Your task to perform on an android device: turn off airplane mode Image 0: 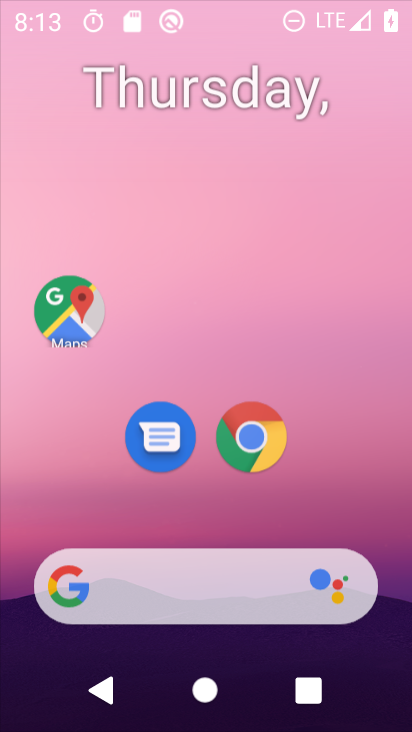
Step 0: click (217, 122)
Your task to perform on an android device: turn off airplane mode Image 1: 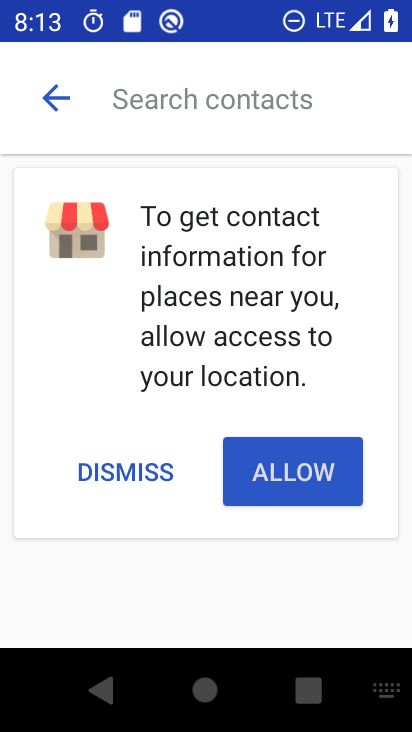
Step 1: press home button
Your task to perform on an android device: turn off airplane mode Image 2: 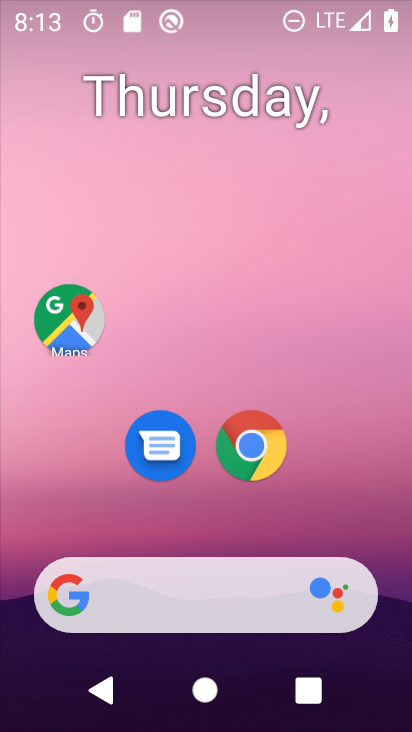
Step 2: drag from (198, 603) to (212, 112)
Your task to perform on an android device: turn off airplane mode Image 3: 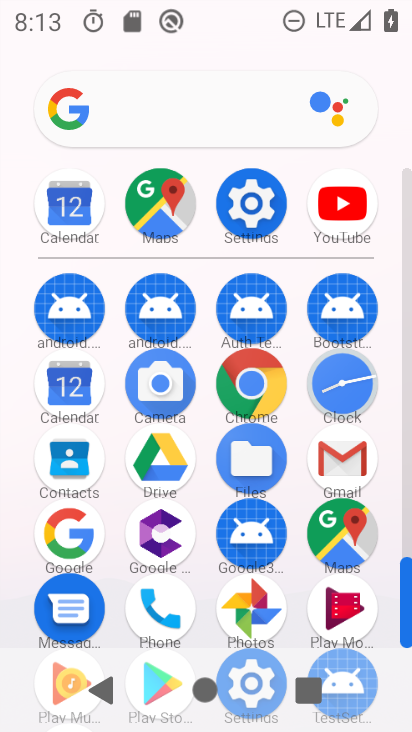
Step 3: drag from (200, 637) to (221, 198)
Your task to perform on an android device: turn off airplane mode Image 4: 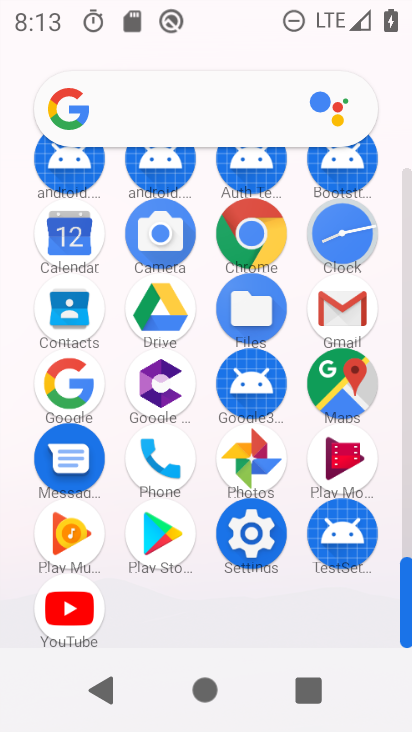
Step 4: click (256, 541)
Your task to perform on an android device: turn off airplane mode Image 5: 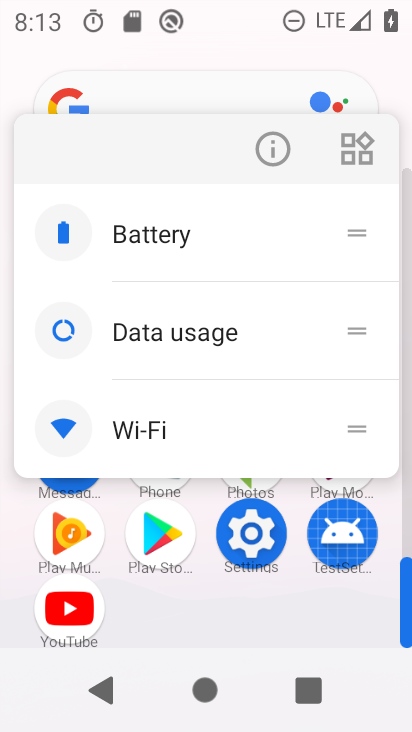
Step 5: click (277, 154)
Your task to perform on an android device: turn off airplane mode Image 6: 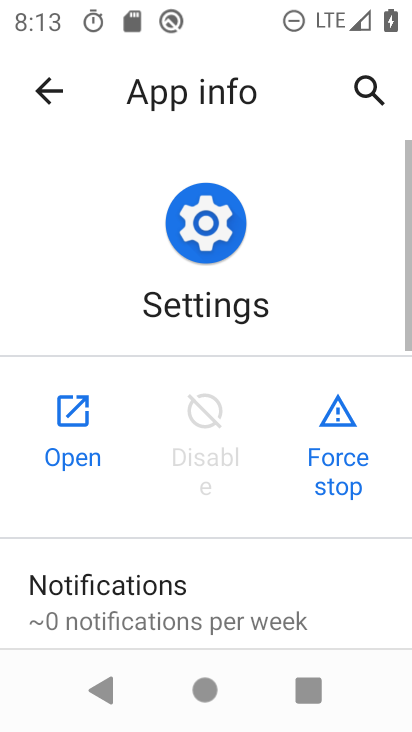
Step 6: click (60, 388)
Your task to perform on an android device: turn off airplane mode Image 7: 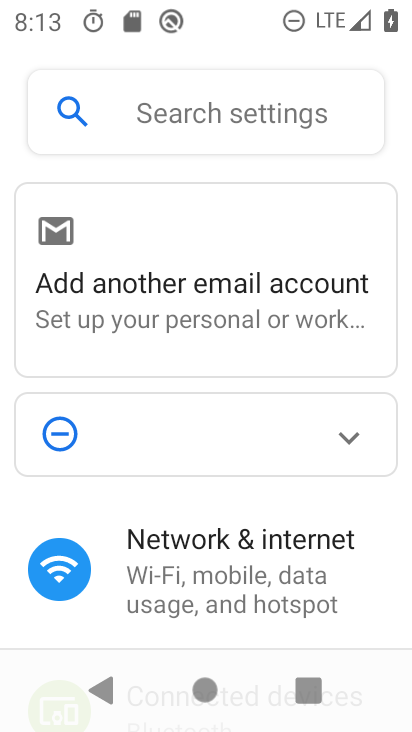
Step 7: drag from (181, 590) to (217, 333)
Your task to perform on an android device: turn off airplane mode Image 8: 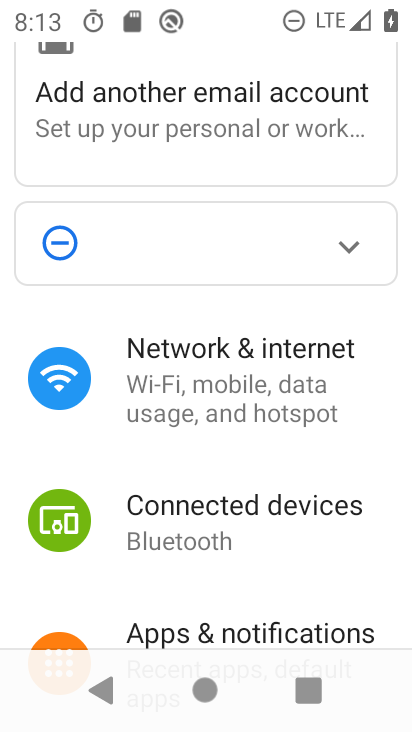
Step 8: click (239, 365)
Your task to perform on an android device: turn off airplane mode Image 9: 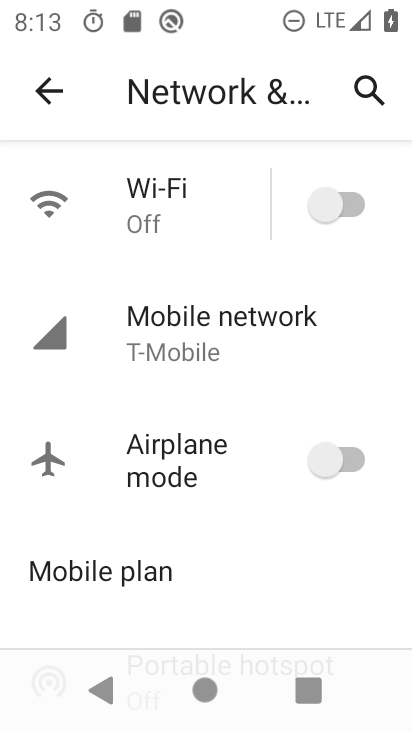
Step 9: task complete